Your task to perform on an android device: Open Amazon Image 0: 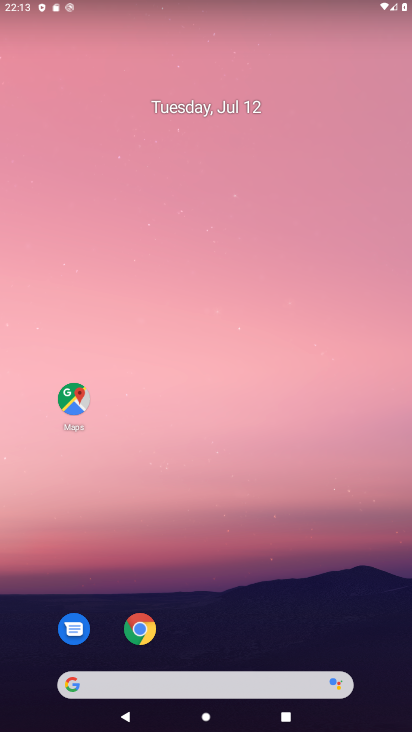
Step 0: drag from (320, 600) to (259, 0)
Your task to perform on an android device: Open Amazon Image 1: 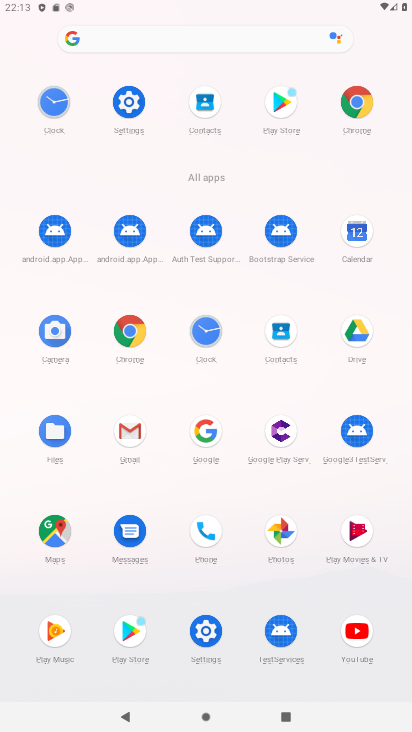
Step 1: click (125, 328)
Your task to perform on an android device: Open Amazon Image 2: 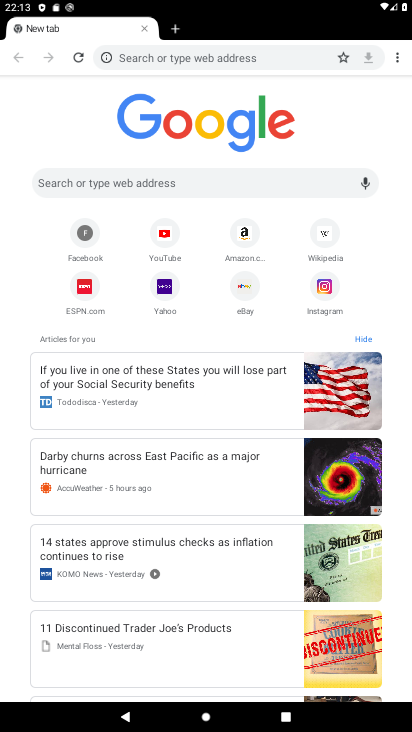
Step 2: click (251, 231)
Your task to perform on an android device: Open Amazon Image 3: 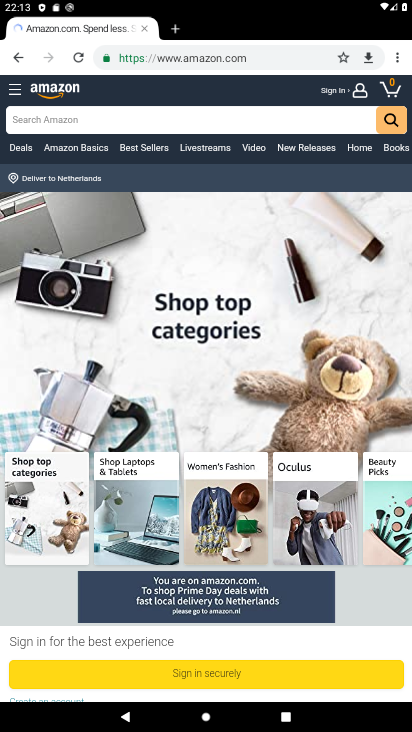
Step 3: task complete